Your task to perform on an android device: allow cookies in the chrome app Image 0: 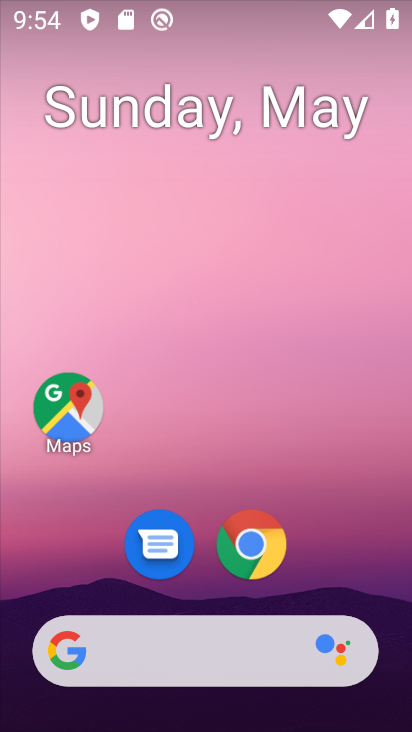
Step 0: click (249, 547)
Your task to perform on an android device: allow cookies in the chrome app Image 1: 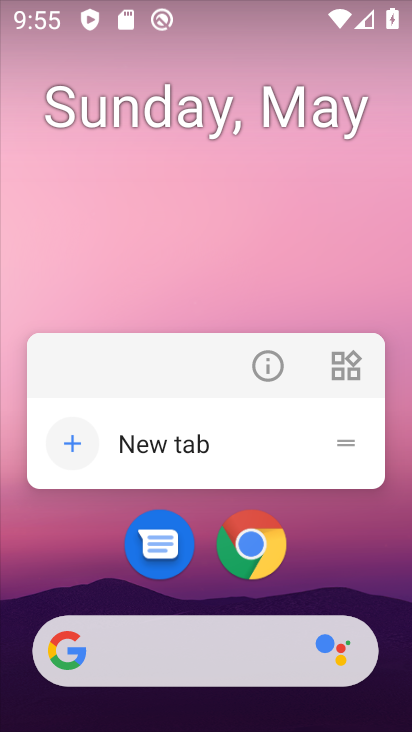
Step 1: click (249, 550)
Your task to perform on an android device: allow cookies in the chrome app Image 2: 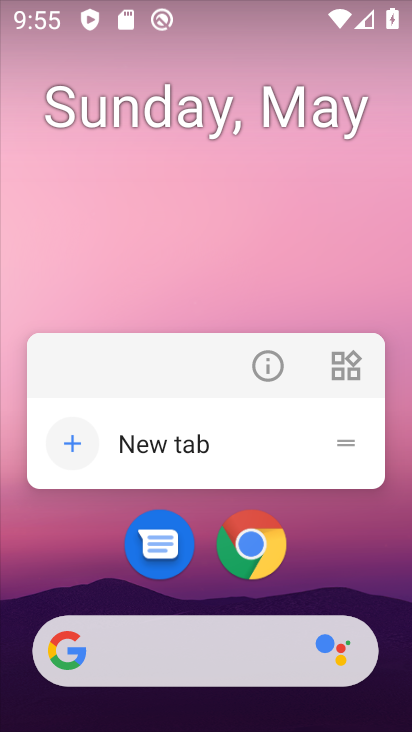
Step 2: click (250, 549)
Your task to perform on an android device: allow cookies in the chrome app Image 3: 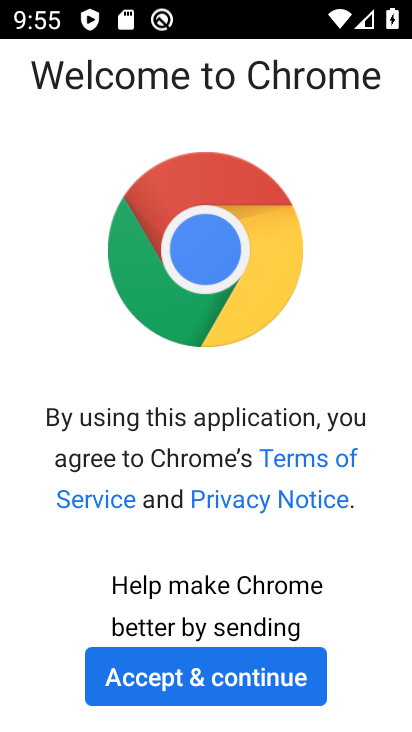
Step 3: click (219, 671)
Your task to perform on an android device: allow cookies in the chrome app Image 4: 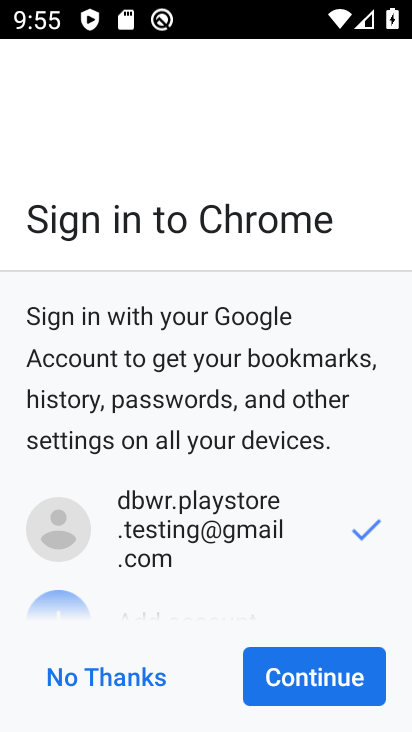
Step 4: click (144, 692)
Your task to perform on an android device: allow cookies in the chrome app Image 5: 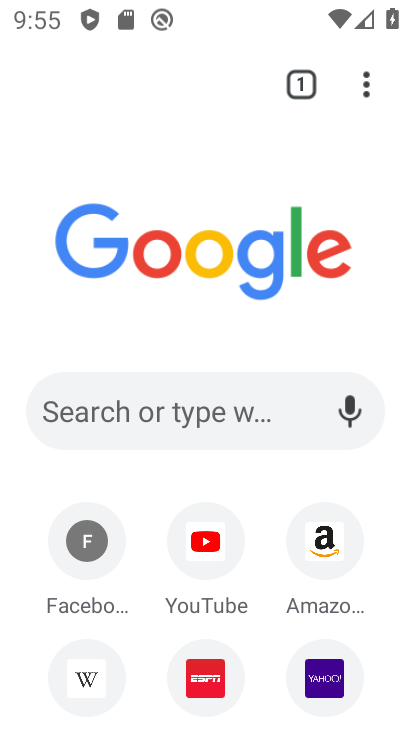
Step 5: drag from (366, 100) to (134, 578)
Your task to perform on an android device: allow cookies in the chrome app Image 6: 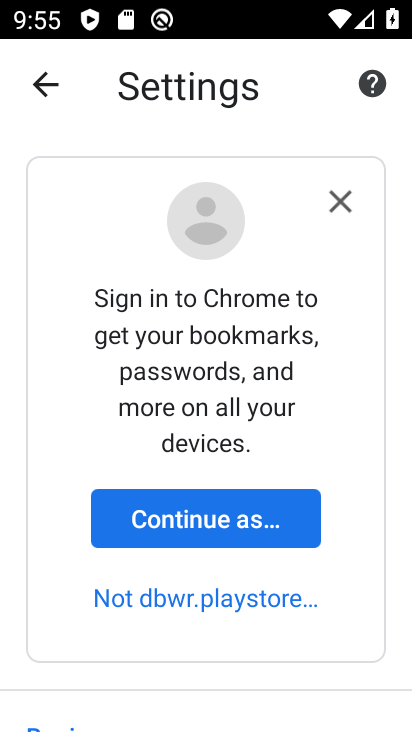
Step 6: click (168, 513)
Your task to perform on an android device: allow cookies in the chrome app Image 7: 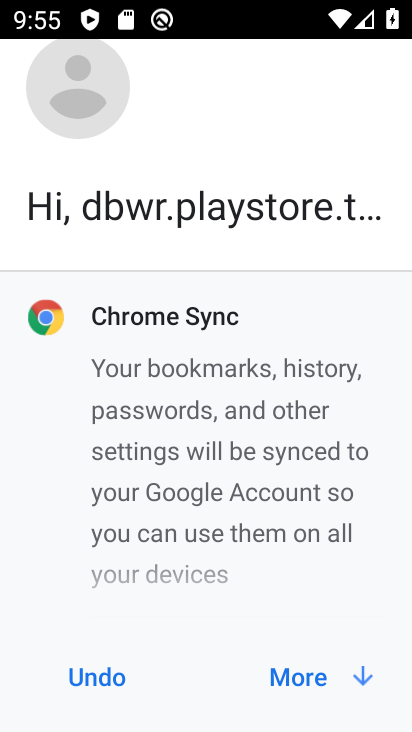
Step 7: click (311, 684)
Your task to perform on an android device: allow cookies in the chrome app Image 8: 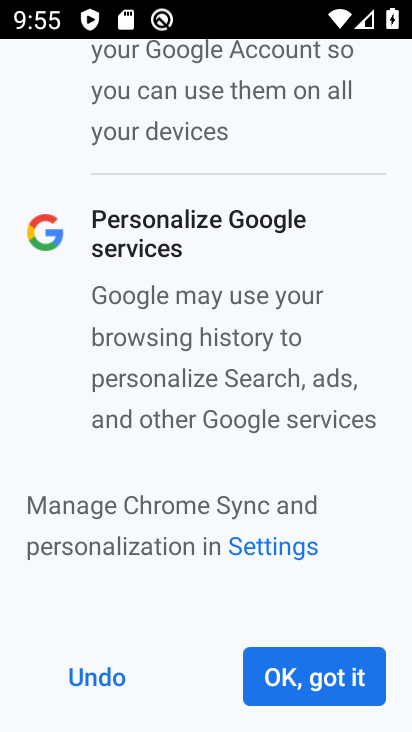
Step 8: click (311, 685)
Your task to perform on an android device: allow cookies in the chrome app Image 9: 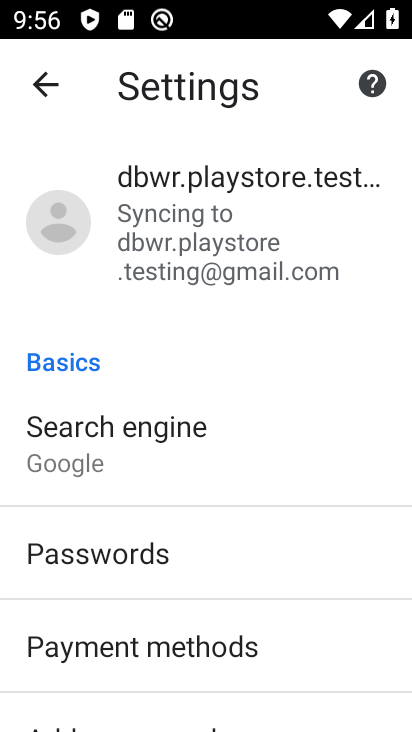
Step 9: drag from (223, 591) to (296, 183)
Your task to perform on an android device: allow cookies in the chrome app Image 10: 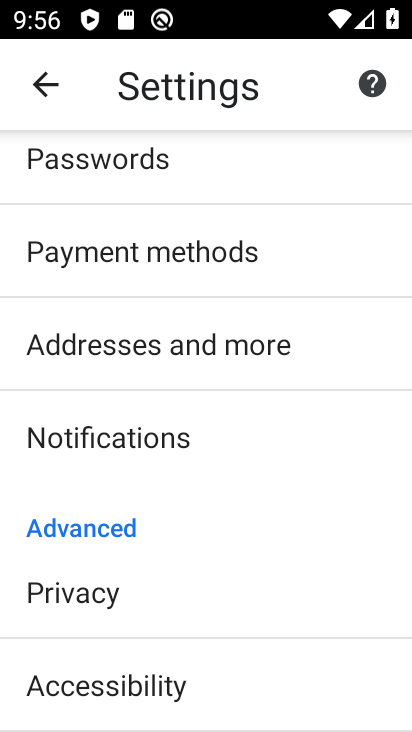
Step 10: drag from (157, 581) to (156, 122)
Your task to perform on an android device: allow cookies in the chrome app Image 11: 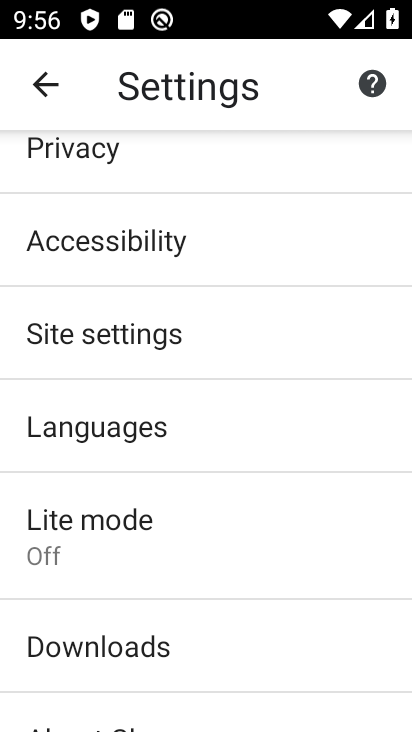
Step 11: drag from (87, 635) to (117, 251)
Your task to perform on an android device: allow cookies in the chrome app Image 12: 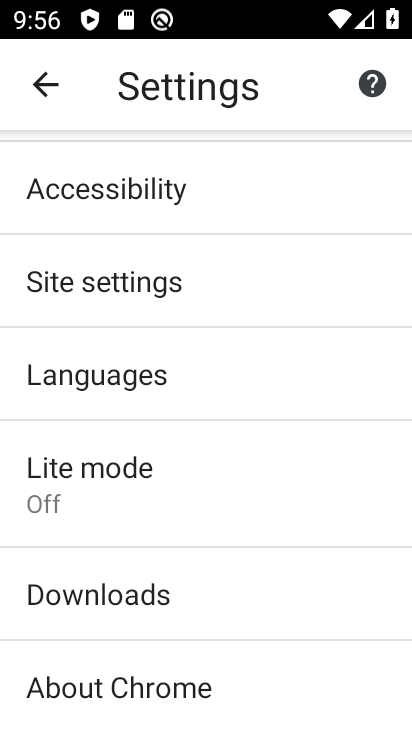
Step 12: drag from (147, 651) to (190, 261)
Your task to perform on an android device: allow cookies in the chrome app Image 13: 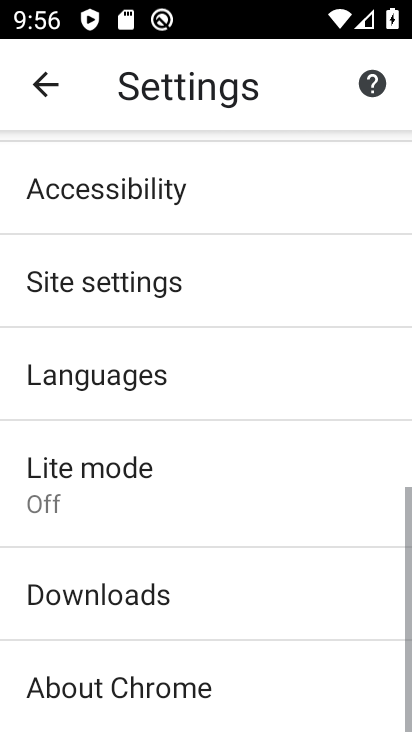
Step 13: drag from (191, 264) to (131, 600)
Your task to perform on an android device: allow cookies in the chrome app Image 14: 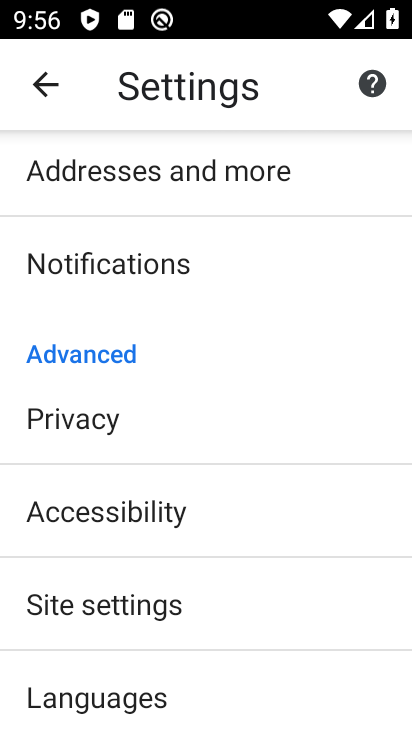
Step 14: drag from (214, 280) to (121, 703)
Your task to perform on an android device: allow cookies in the chrome app Image 15: 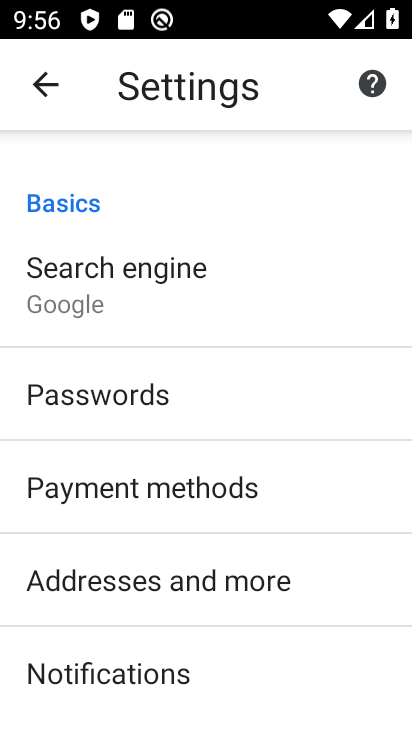
Step 15: drag from (184, 632) to (213, 219)
Your task to perform on an android device: allow cookies in the chrome app Image 16: 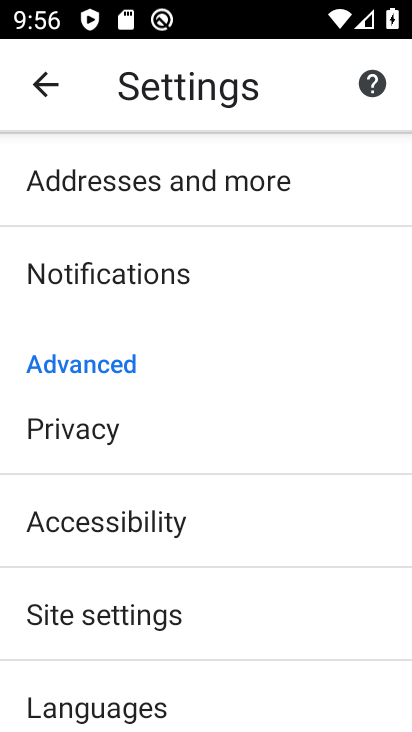
Step 16: drag from (238, 568) to (327, 54)
Your task to perform on an android device: allow cookies in the chrome app Image 17: 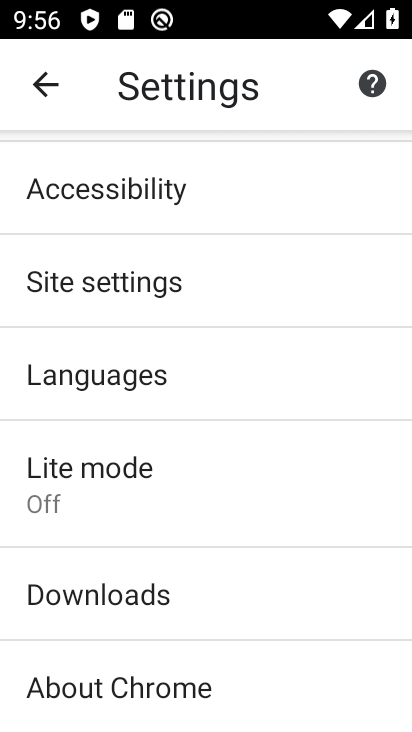
Step 17: click (179, 278)
Your task to perform on an android device: allow cookies in the chrome app Image 18: 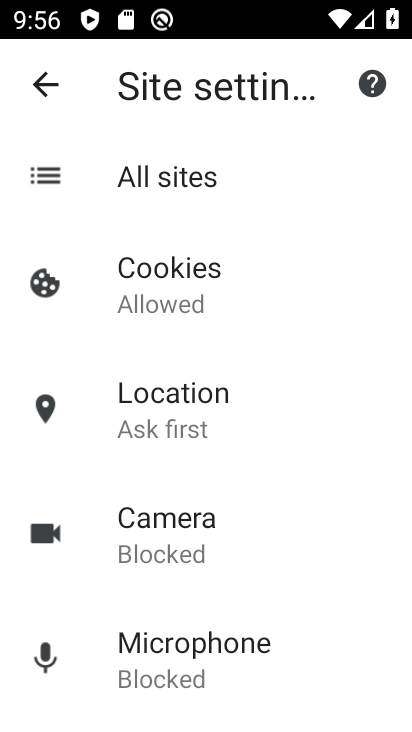
Step 18: click (176, 283)
Your task to perform on an android device: allow cookies in the chrome app Image 19: 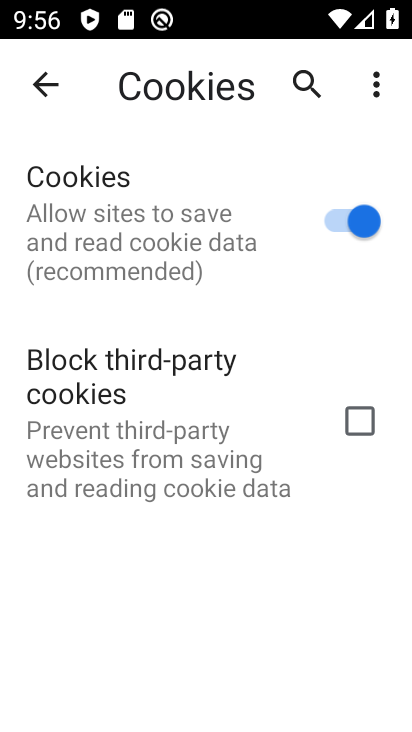
Step 19: task complete